Your task to perform on an android device: Go to Wikipedia Image 0: 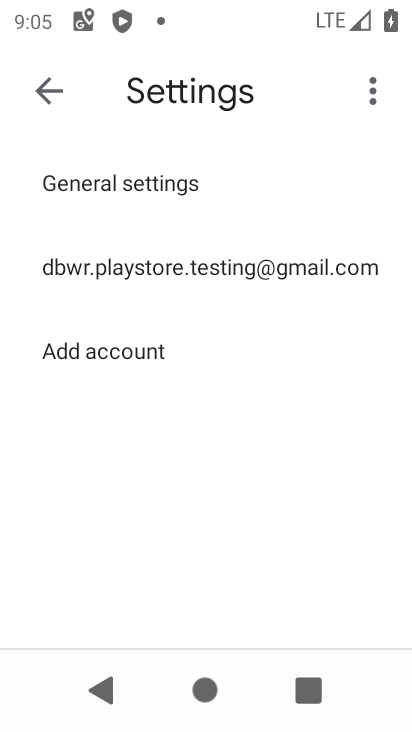
Step 0: press home button
Your task to perform on an android device: Go to Wikipedia Image 1: 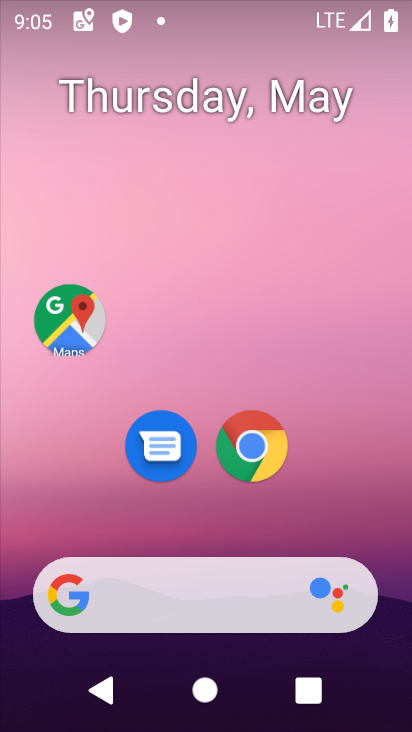
Step 1: click (256, 442)
Your task to perform on an android device: Go to Wikipedia Image 2: 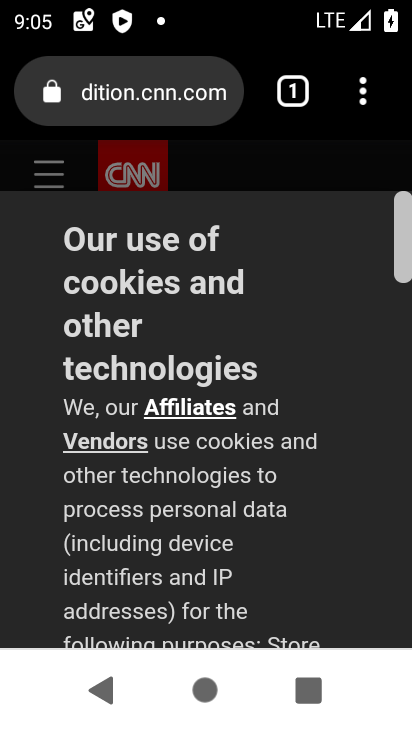
Step 2: click (139, 89)
Your task to perform on an android device: Go to Wikipedia Image 3: 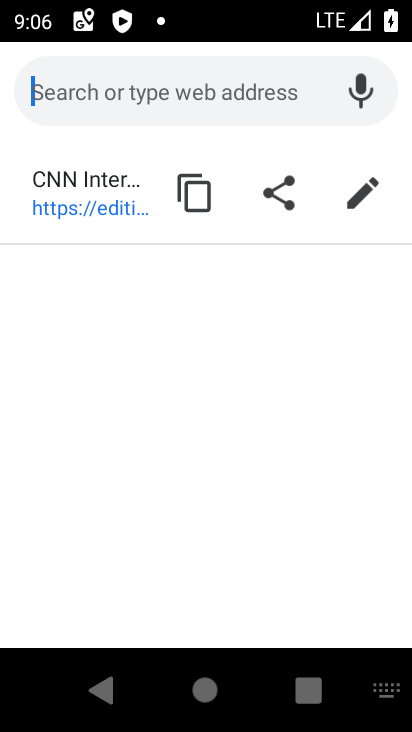
Step 3: type "wikipedia"
Your task to perform on an android device: Go to Wikipedia Image 4: 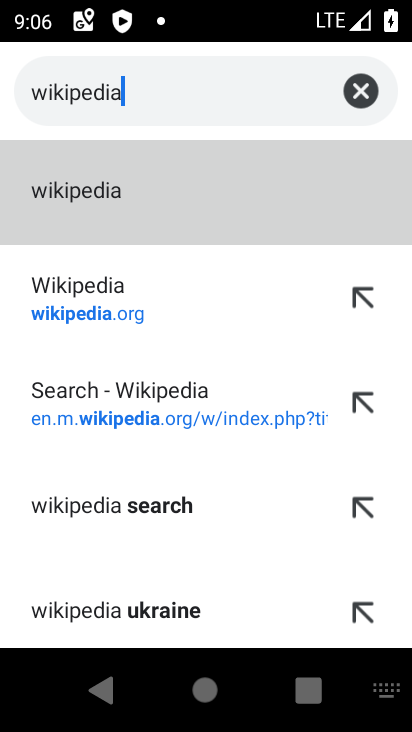
Step 4: click (87, 194)
Your task to perform on an android device: Go to Wikipedia Image 5: 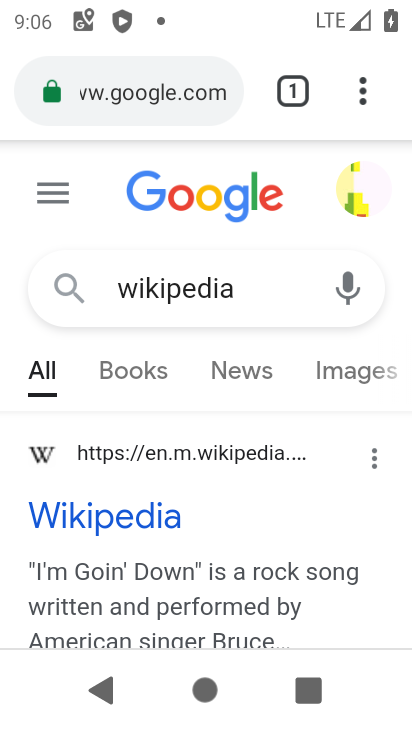
Step 5: click (94, 518)
Your task to perform on an android device: Go to Wikipedia Image 6: 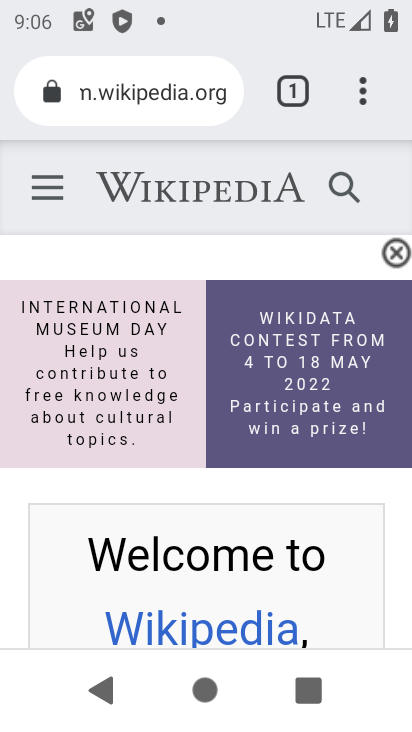
Step 6: task complete